Your task to perform on an android device: Show me popular games on the Play Store Image 0: 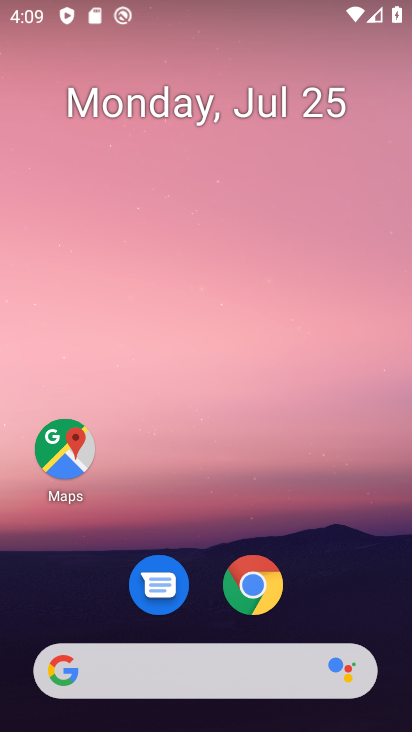
Step 0: drag from (313, 585) to (326, 41)
Your task to perform on an android device: Show me popular games on the Play Store Image 1: 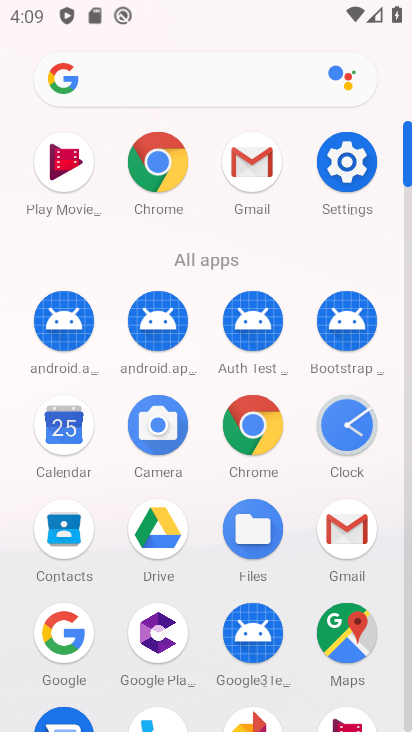
Step 1: drag from (285, 505) to (302, 119)
Your task to perform on an android device: Show me popular games on the Play Store Image 2: 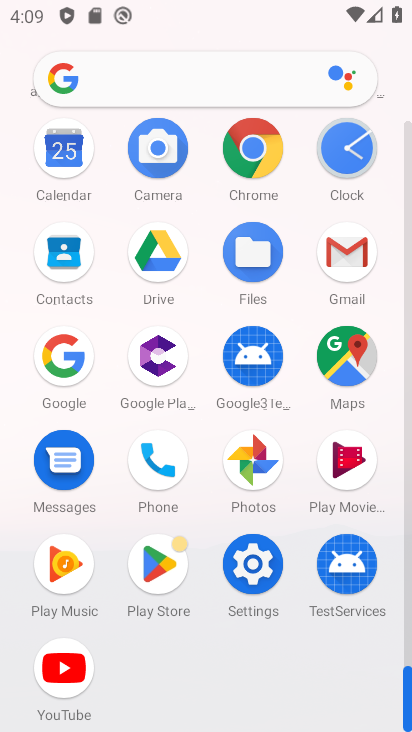
Step 2: click (151, 554)
Your task to perform on an android device: Show me popular games on the Play Store Image 3: 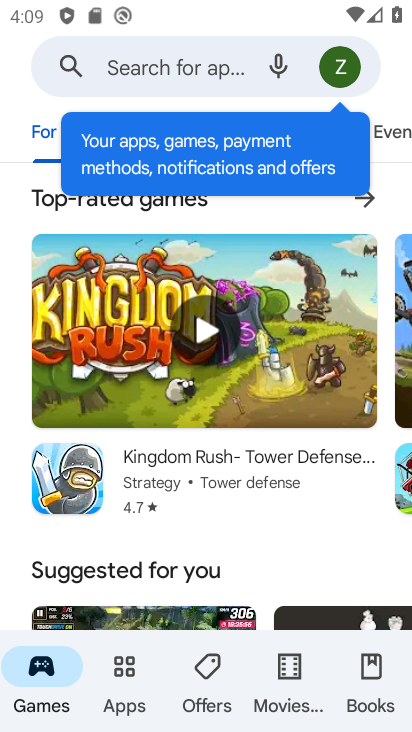
Step 3: task complete